Your task to perform on an android device: choose inbox layout in the gmail app Image 0: 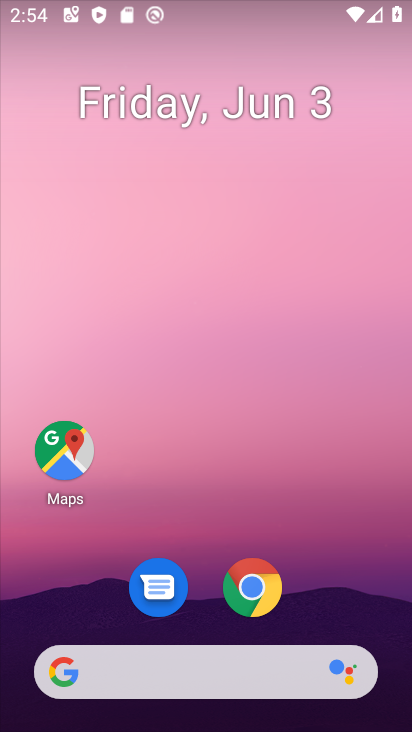
Step 0: click (200, 50)
Your task to perform on an android device: choose inbox layout in the gmail app Image 1: 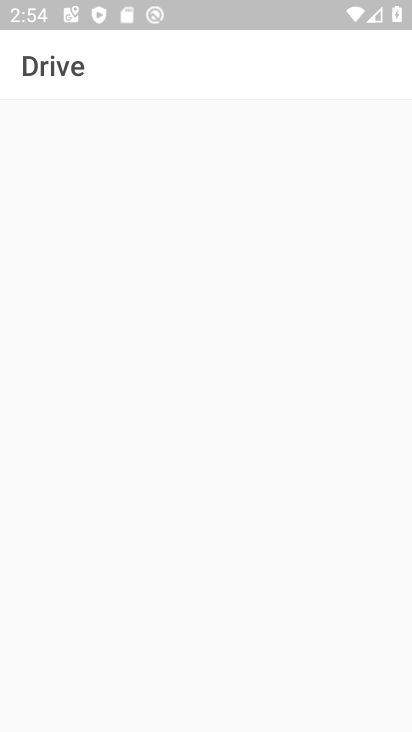
Step 1: press home button
Your task to perform on an android device: choose inbox layout in the gmail app Image 2: 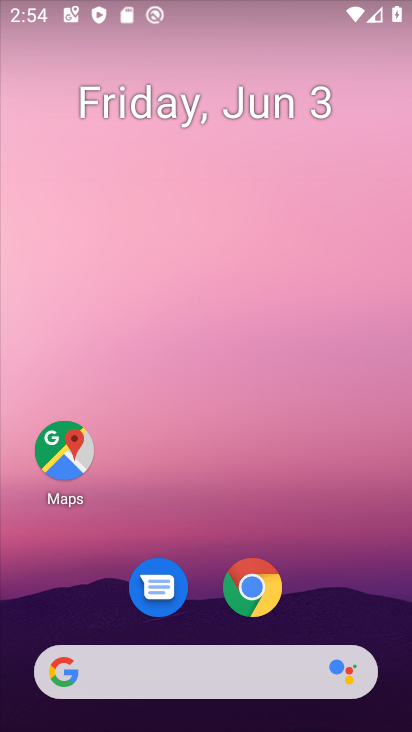
Step 2: drag from (216, 723) to (206, 8)
Your task to perform on an android device: choose inbox layout in the gmail app Image 3: 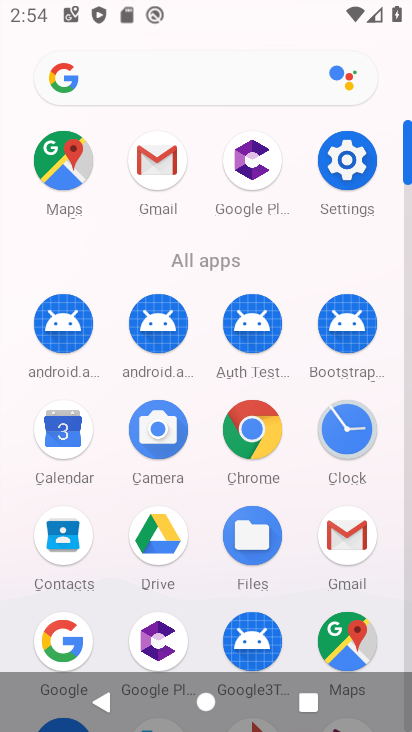
Step 3: click (353, 529)
Your task to perform on an android device: choose inbox layout in the gmail app Image 4: 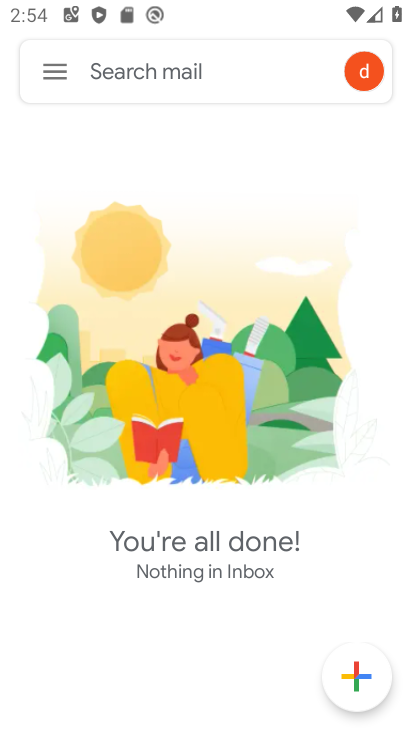
Step 4: click (49, 69)
Your task to perform on an android device: choose inbox layout in the gmail app Image 5: 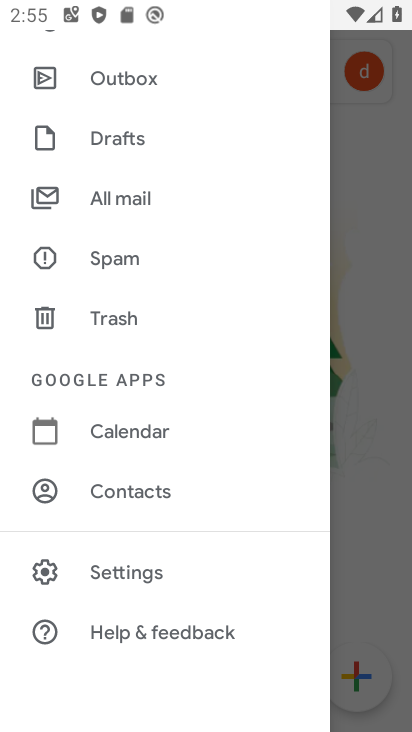
Step 5: click (129, 569)
Your task to perform on an android device: choose inbox layout in the gmail app Image 6: 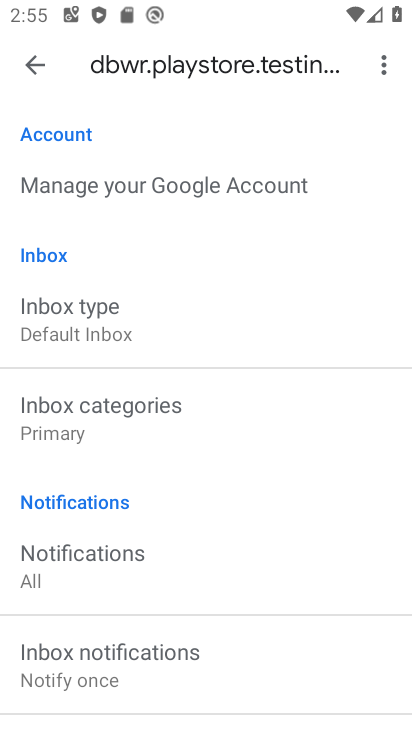
Step 6: click (92, 328)
Your task to perform on an android device: choose inbox layout in the gmail app Image 7: 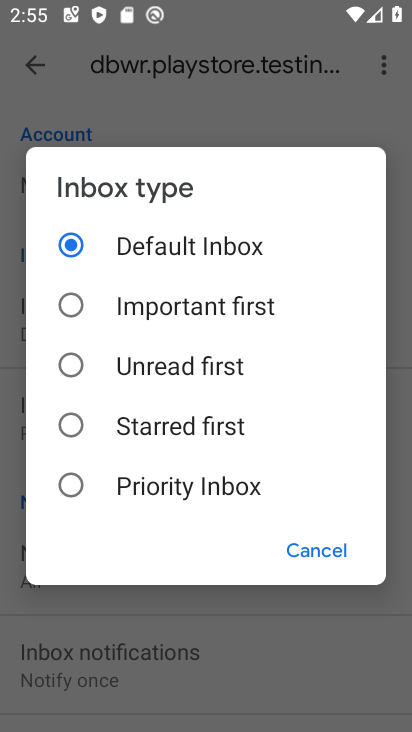
Step 7: click (75, 314)
Your task to perform on an android device: choose inbox layout in the gmail app Image 8: 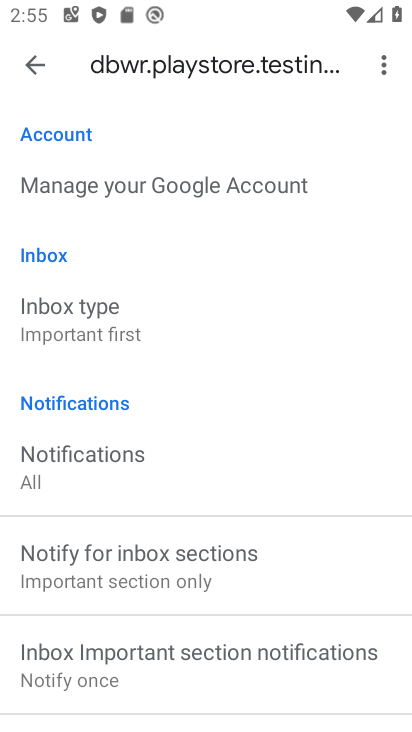
Step 8: task complete